Your task to perform on an android device: remove spam from my inbox in the gmail app Image 0: 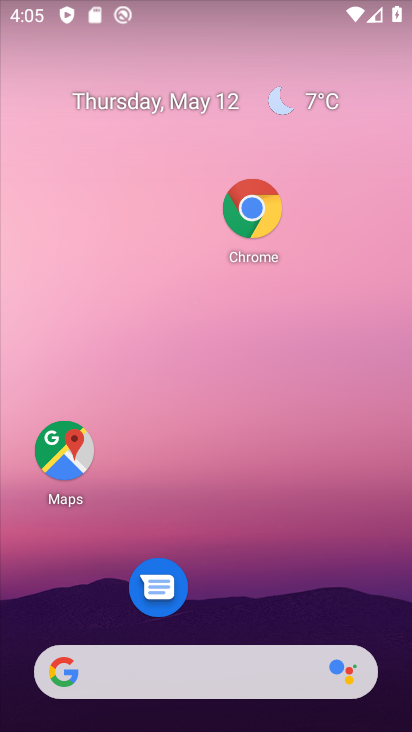
Step 0: drag from (252, 598) to (270, 56)
Your task to perform on an android device: remove spam from my inbox in the gmail app Image 1: 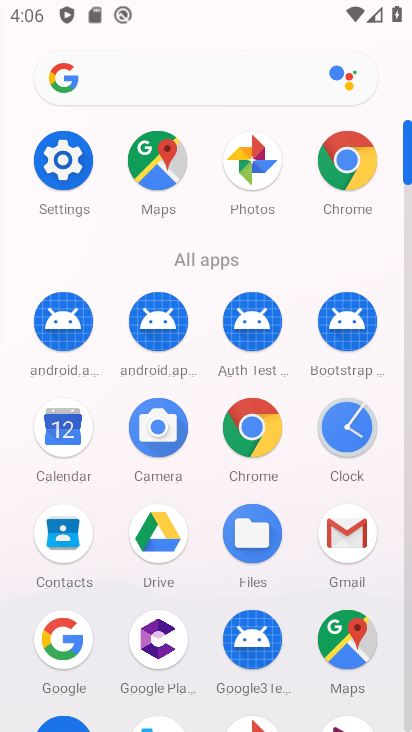
Step 1: click (342, 567)
Your task to perform on an android device: remove spam from my inbox in the gmail app Image 2: 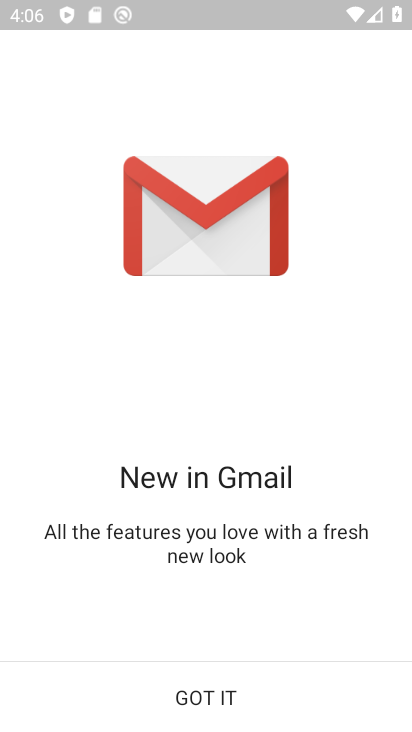
Step 2: click (209, 705)
Your task to perform on an android device: remove spam from my inbox in the gmail app Image 3: 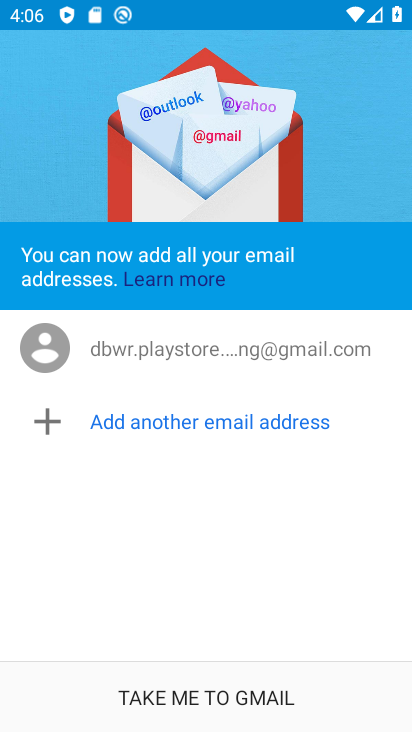
Step 3: click (209, 697)
Your task to perform on an android device: remove spam from my inbox in the gmail app Image 4: 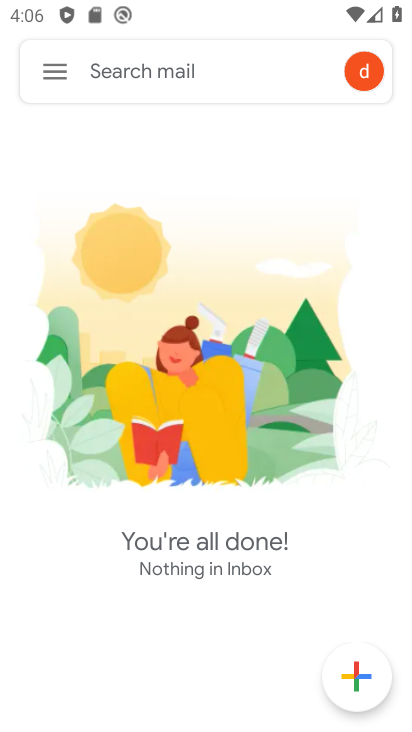
Step 4: click (57, 77)
Your task to perform on an android device: remove spam from my inbox in the gmail app Image 5: 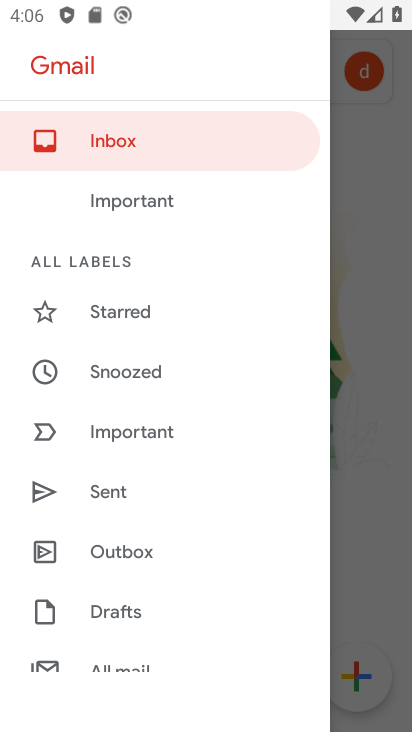
Step 5: drag from (136, 583) to (167, 318)
Your task to perform on an android device: remove spam from my inbox in the gmail app Image 6: 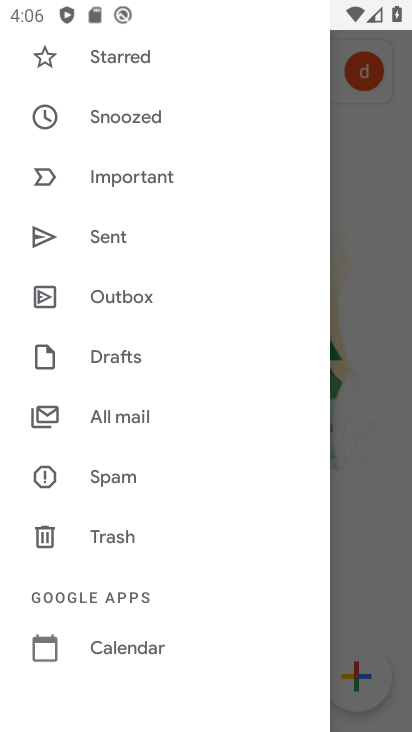
Step 6: click (113, 485)
Your task to perform on an android device: remove spam from my inbox in the gmail app Image 7: 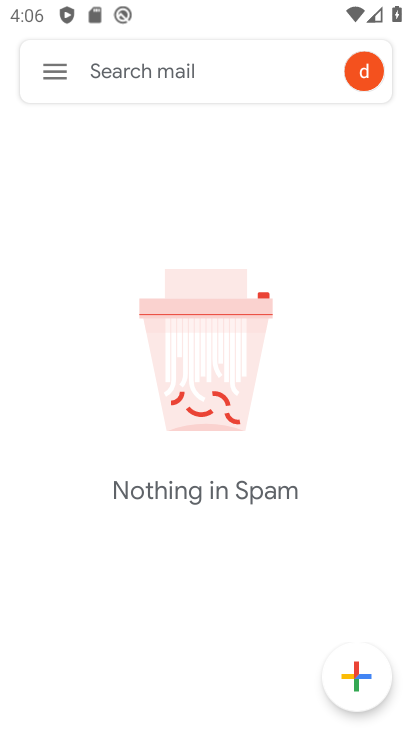
Step 7: task complete